Your task to perform on an android device: How do I get to the nearest McDonalds? Image 0: 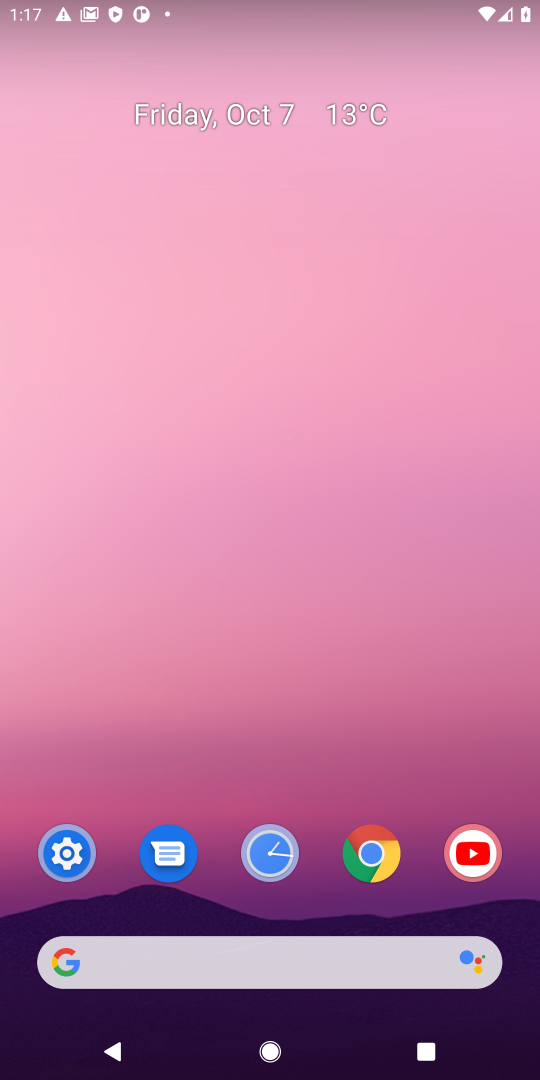
Step 0: click (226, 953)
Your task to perform on an android device: How do I get to the nearest McDonalds? Image 1: 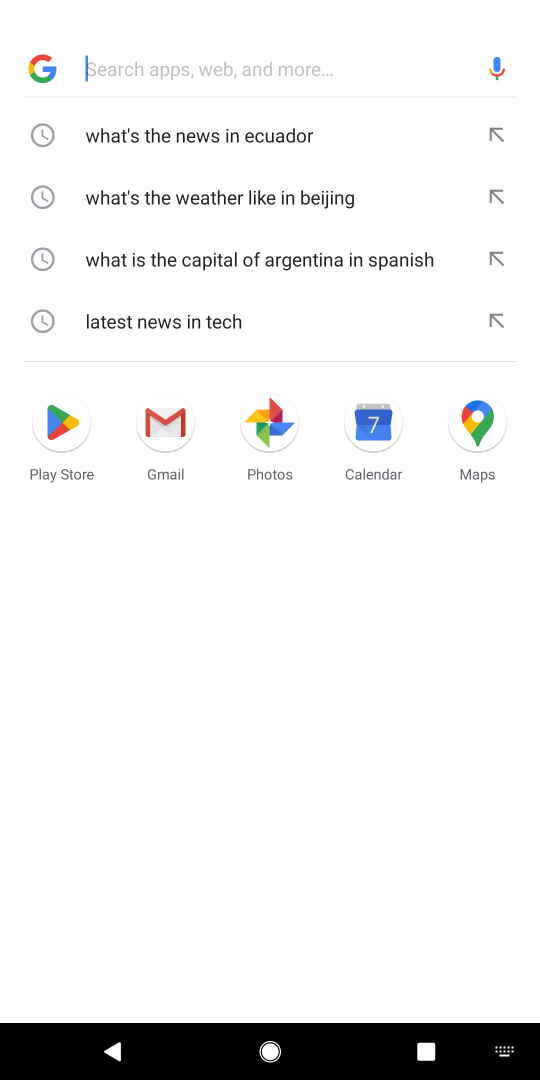
Step 1: type "How do I get to the nearest McDonalds?"
Your task to perform on an android device: How do I get to the nearest McDonalds? Image 2: 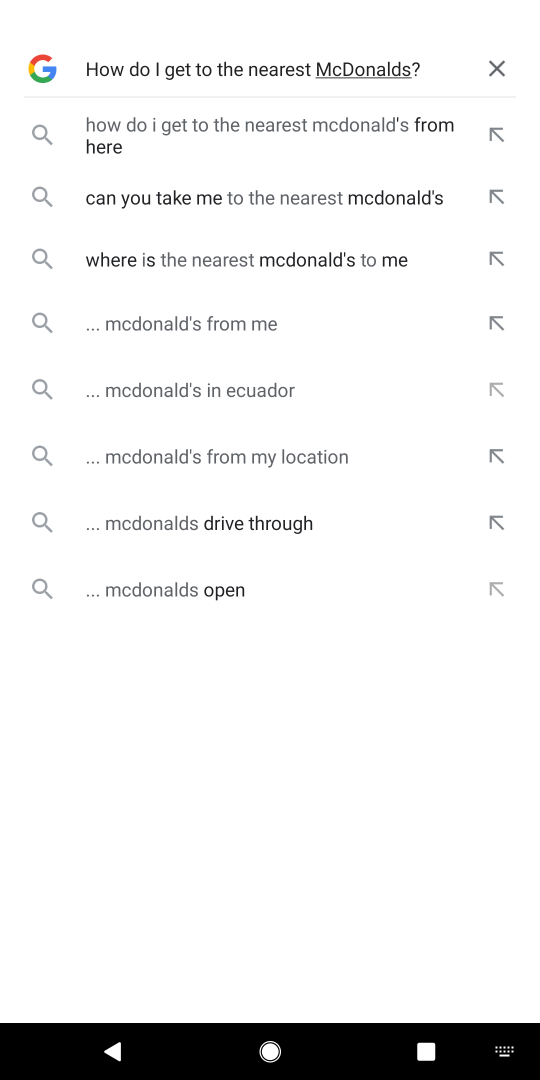
Step 2: click (139, 103)
Your task to perform on an android device: How do I get to the nearest McDonalds? Image 3: 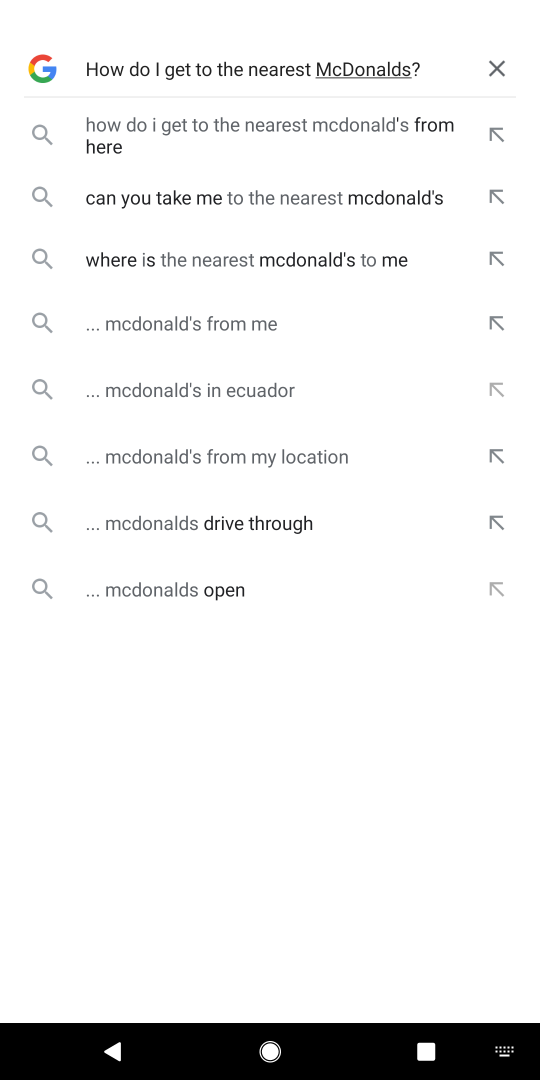
Step 3: click (364, 137)
Your task to perform on an android device: How do I get to the nearest McDonalds? Image 4: 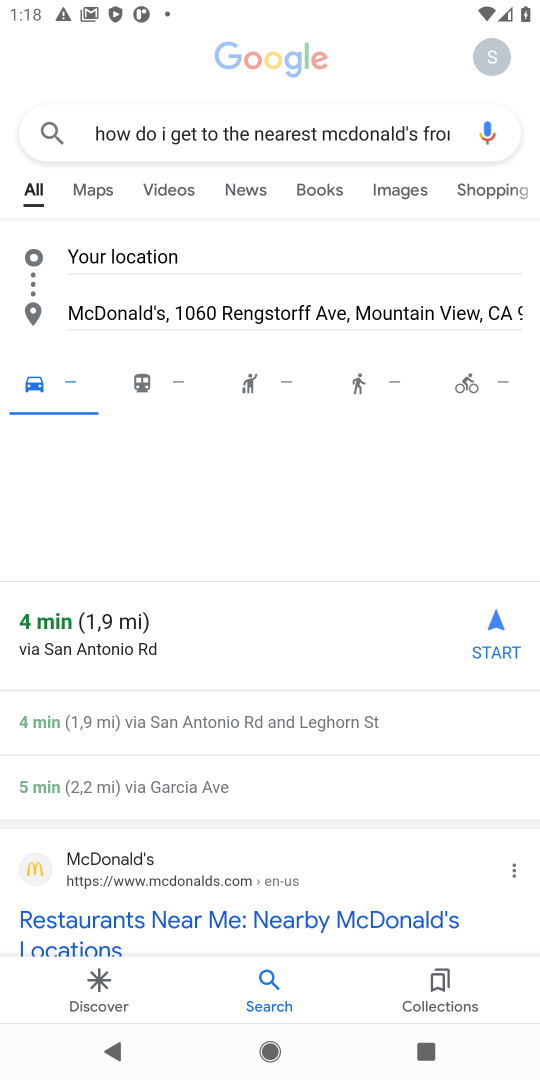
Step 4: task complete